Your task to perform on an android device: move an email to a new category in the gmail app Image 0: 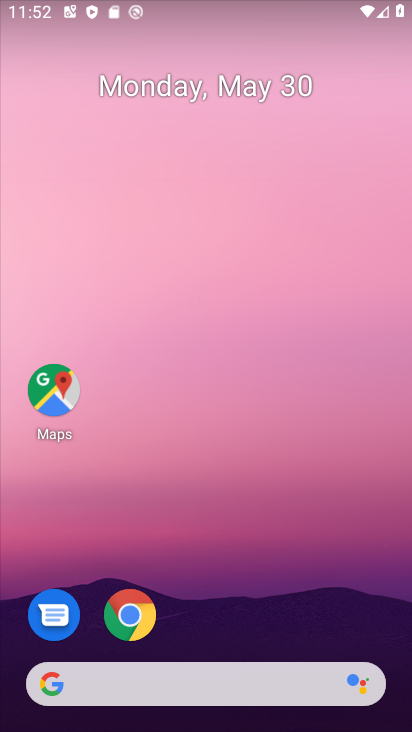
Step 0: drag from (371, 635) to (381, 129)
Your task to perform on an android device: move an email to a new category in the gmail app Image 1: 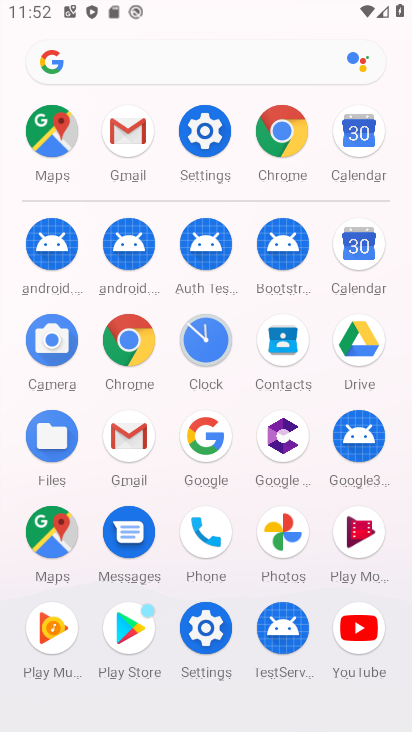
Step 1: click (126, 446)
Your task to perform on an android device: move an email to a new category in the gmail app Image 2: 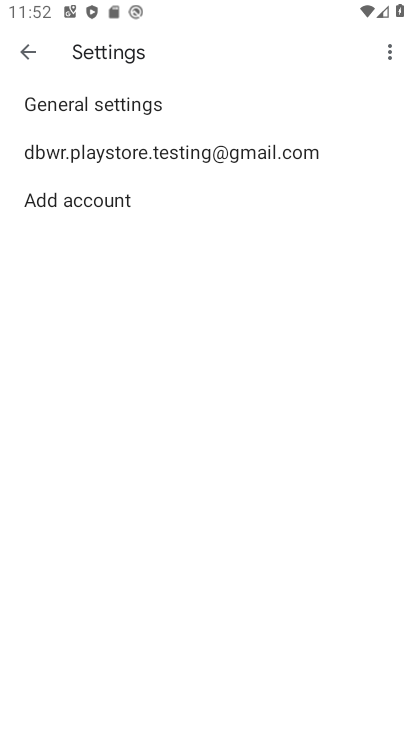
Step 2: click (34, 51)
Your task to perform on an android device: move an email to a new category in the gmail app Image 3: 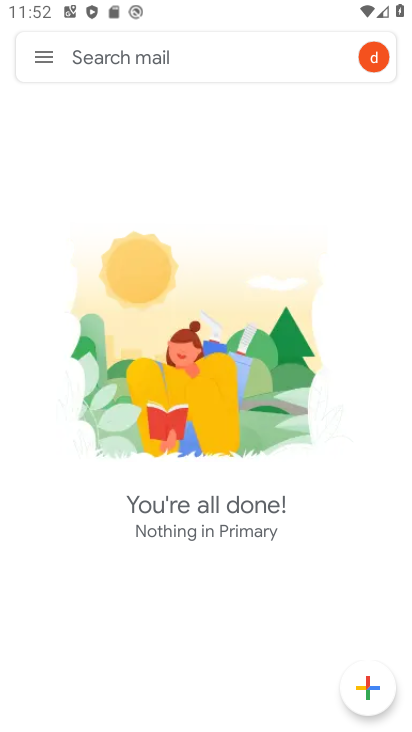
Step 3: task complete